Your task to perform on an android device: open a new tab in the chrome app Image 0: 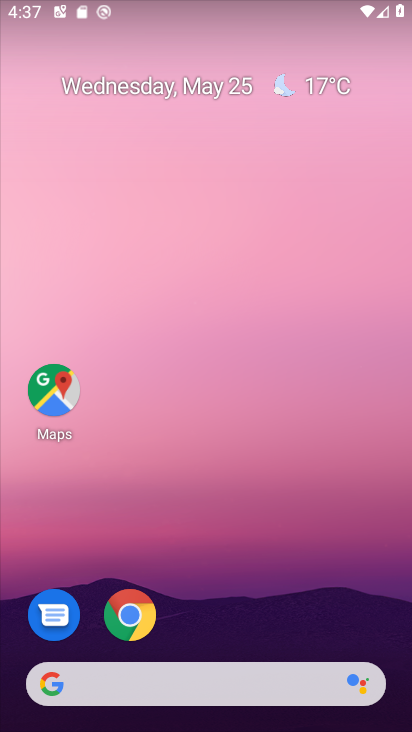
Step 0: click (141, 611)
Your task to perform on an android device: open a new tab in the chrome app Image 1: 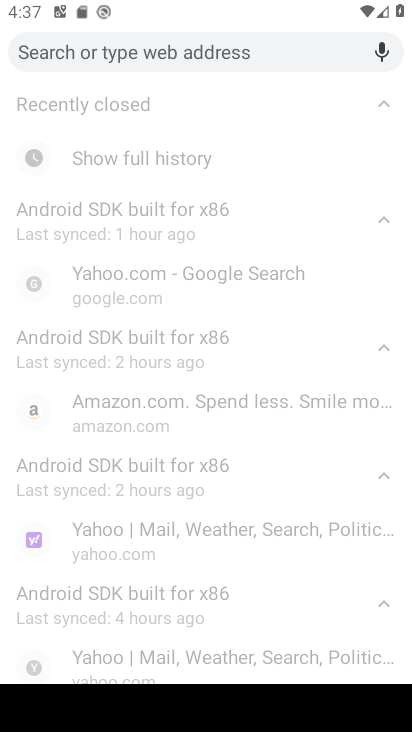
Step 1: press back button
Your task to perform on an android device: open a new tab in the chrome app Image 2: 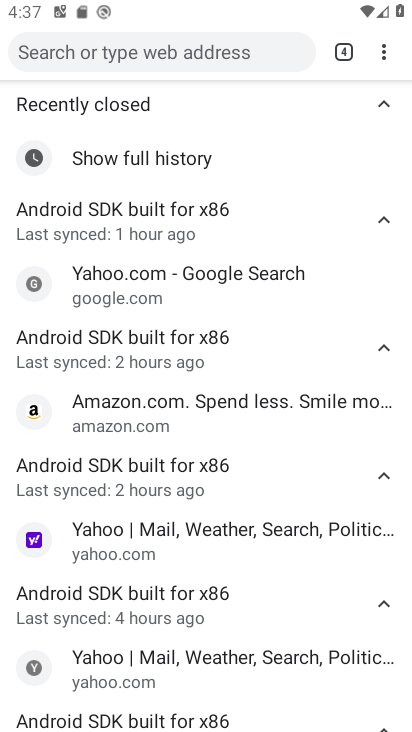
Step 2: click (348, 48)
Your task to perform on an android device: open a new tab in the chrome app Image 3: 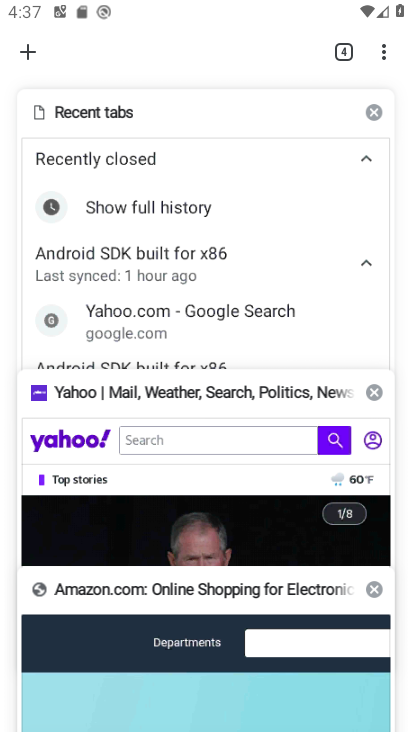
Step 3: click (24, 49)
Your task to perform on an android device: open a new tab in the chrome app Image 4: 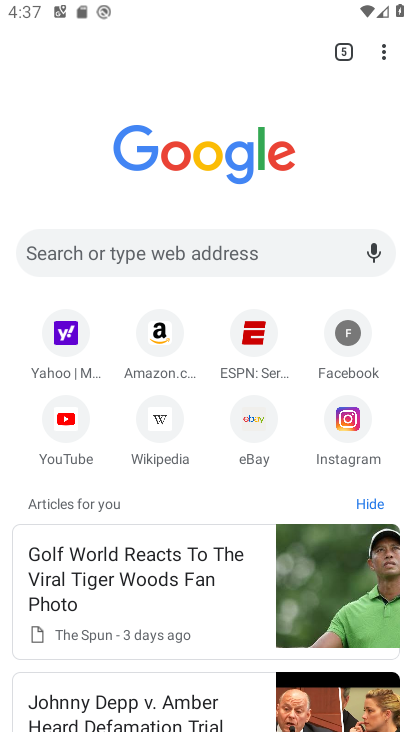
Step 4: task complete